Your task to perform on an android device: Clear all items from cart on bestbuy.com. Image 0: 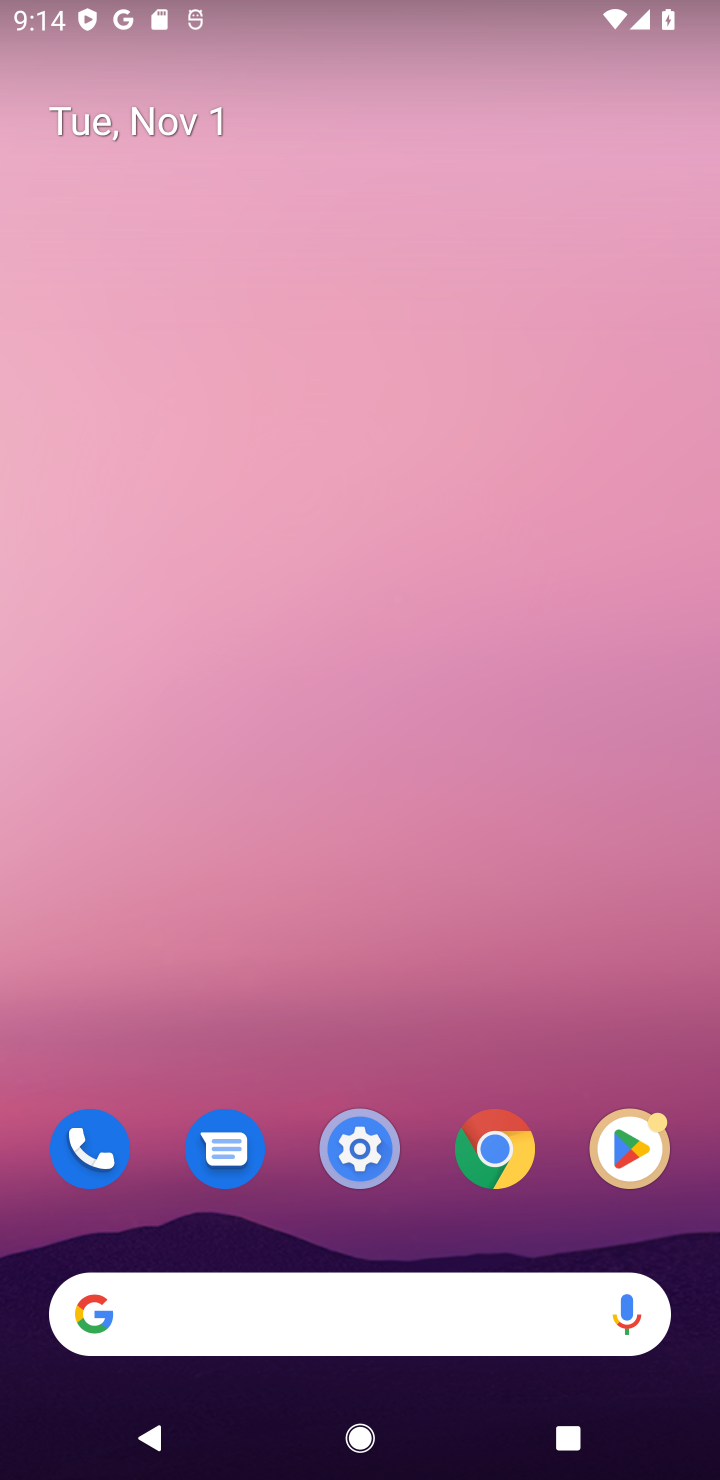
Step 0: press home button
Your task to perform on an android device: Clear all items from cart on bestbuy.com. Image 1: 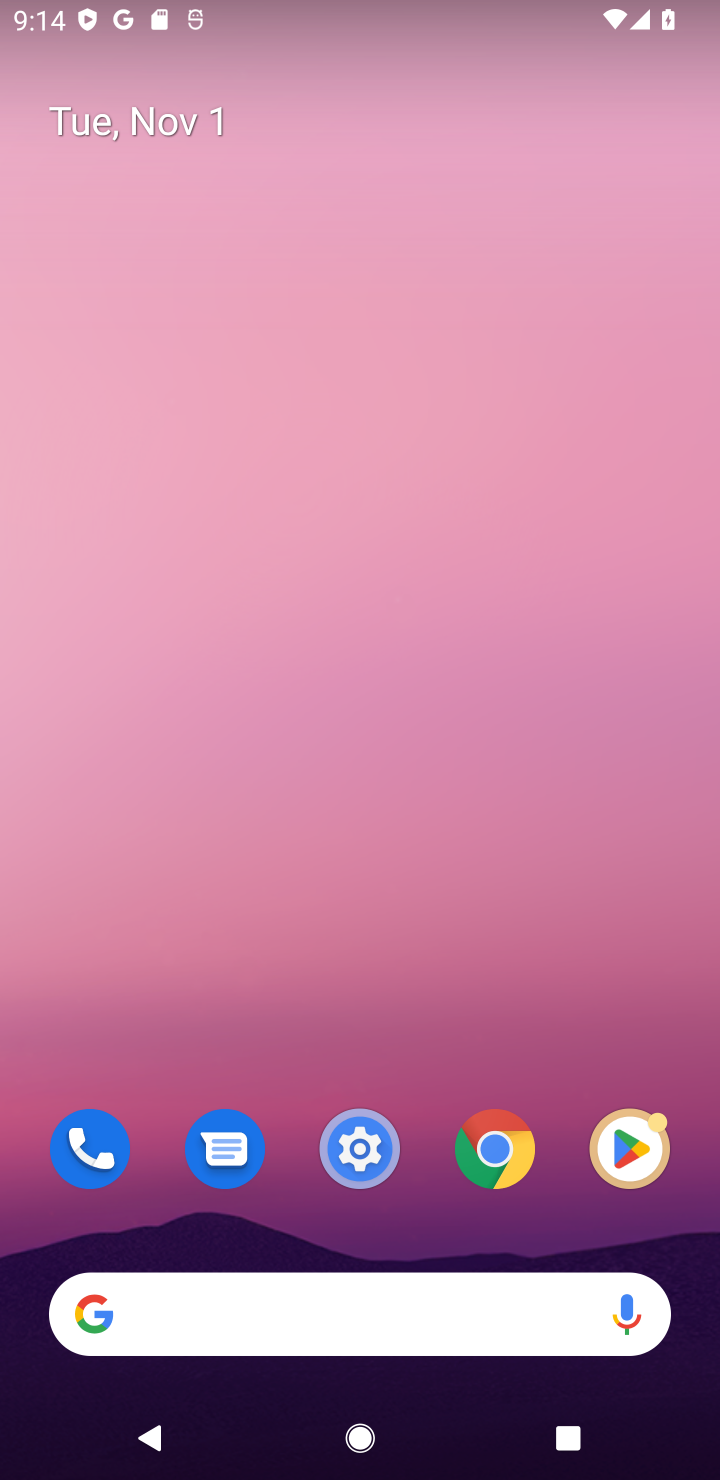
Step 1: click (144, 1306)
Your task to perform on an android device: Clear all items from cart on bestbuy.com. Image 2: 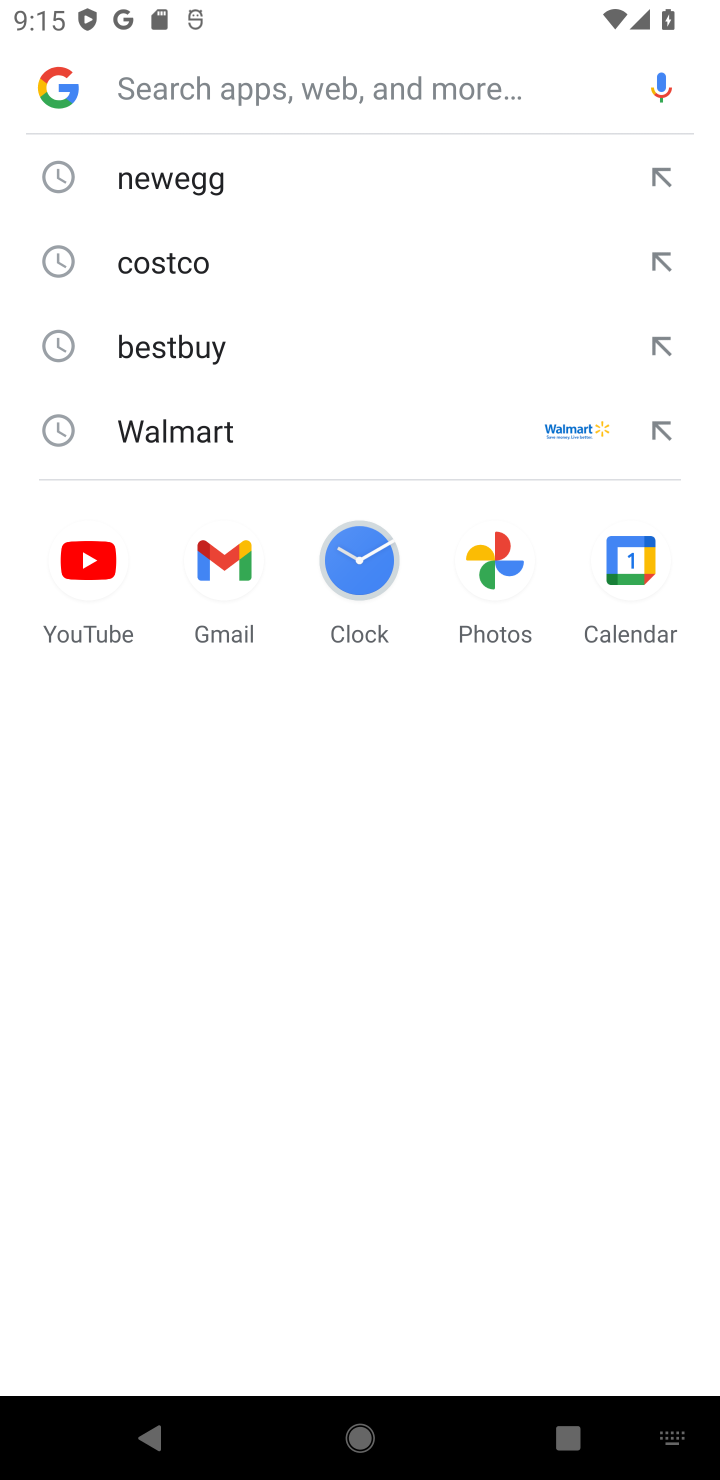
Step 2: press enter
Your task to perform on an android device: Clear all items from cart on bestbuy.com. Image 3: 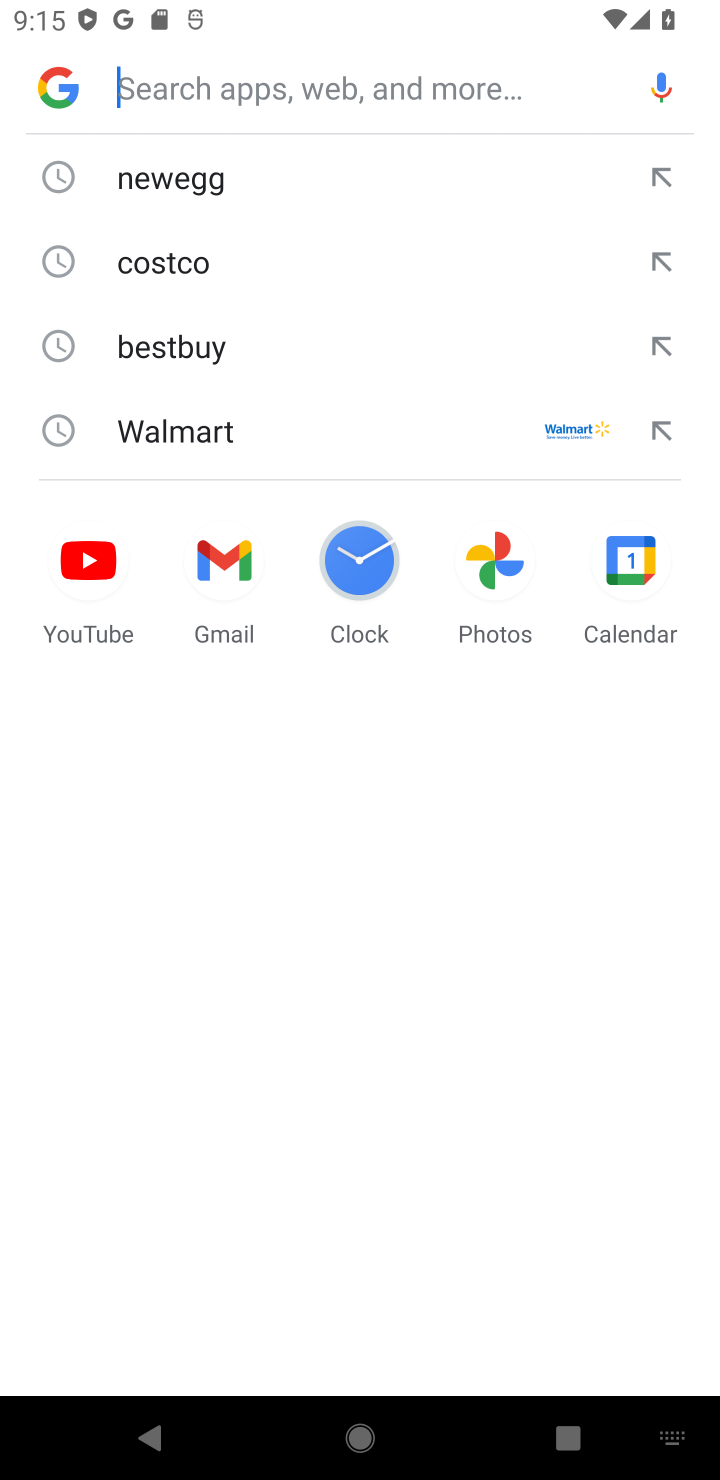
Step 3: type "bestbuy.com"
Your task to perform on an android device: Clear all items from cart on bestbuy.com. Image 4: 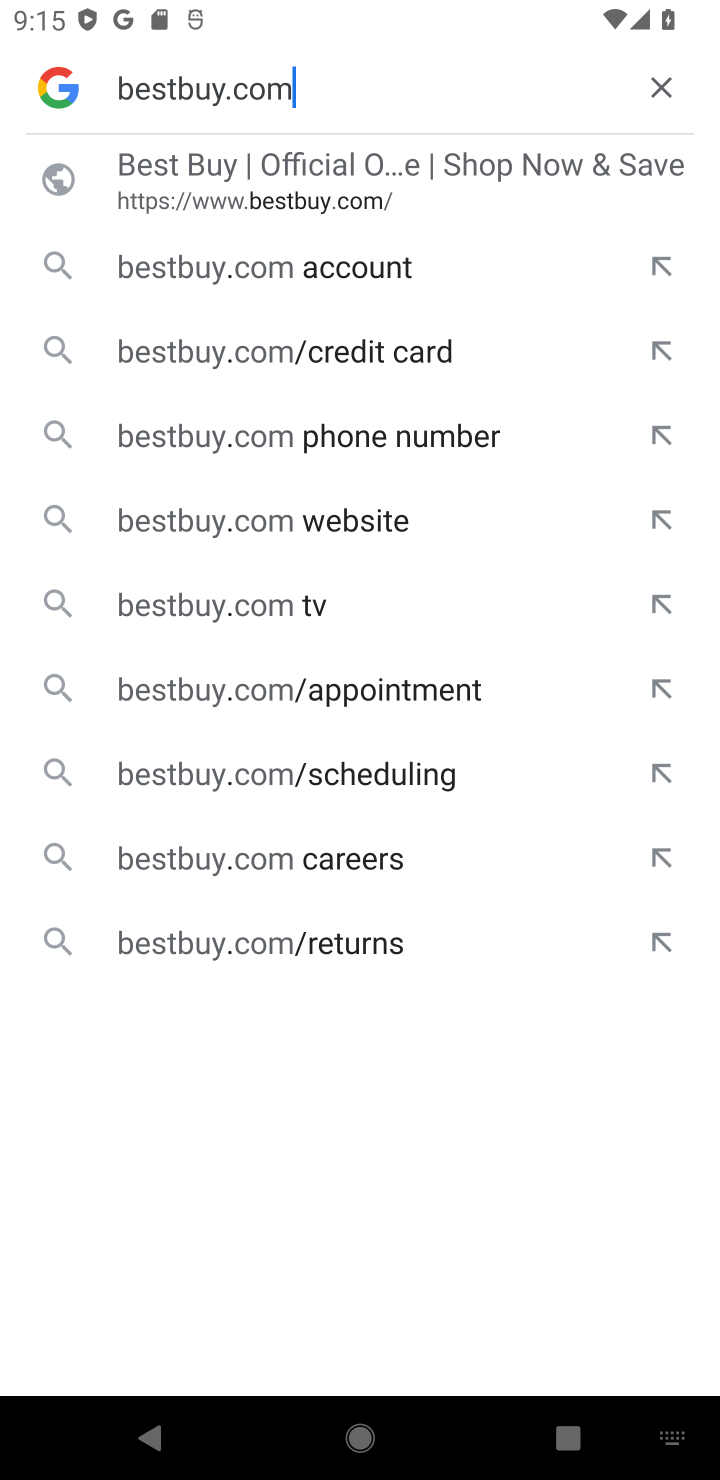
Step 4: press enter
Your task to perform on an android device: Clear all items from cart on bestbuy.com. Image 5: 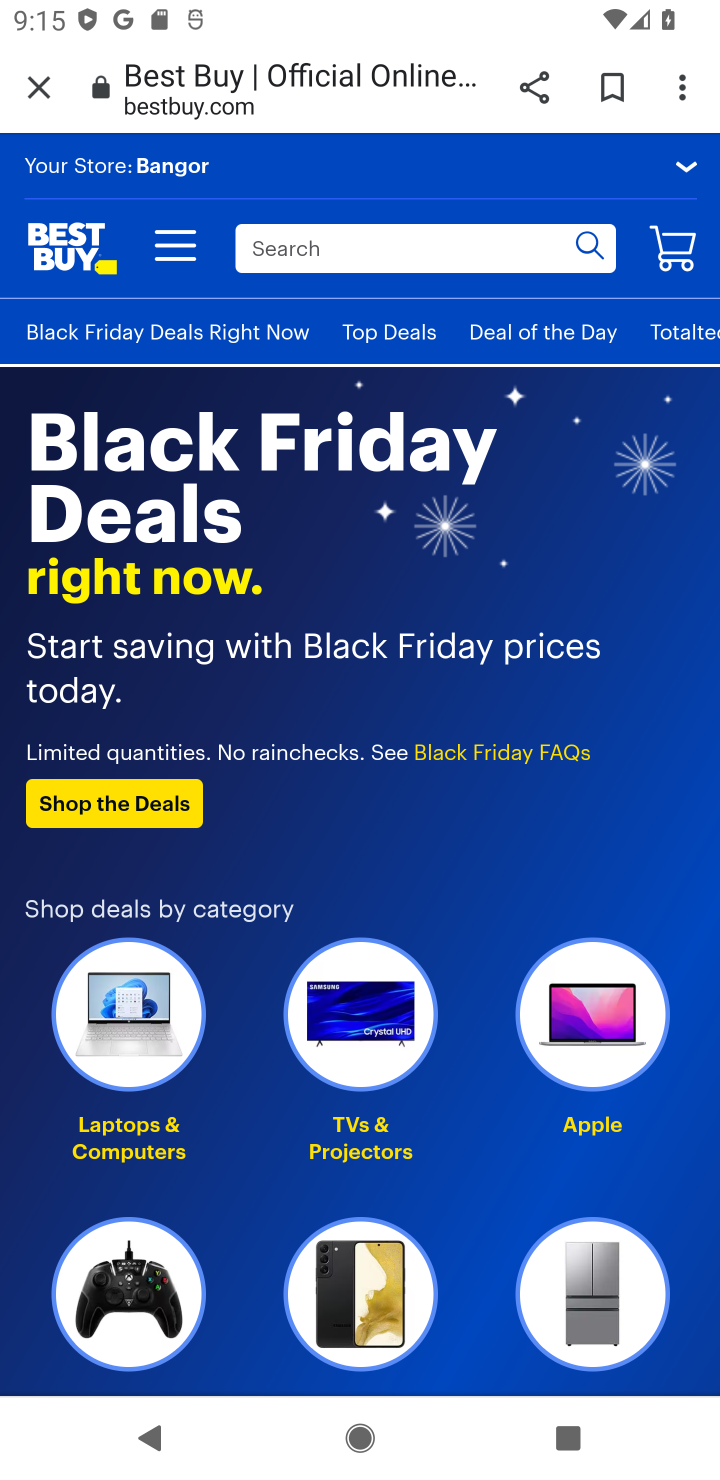
Step 5: click (678, 257)
Your task to perform on an android device: Clear all items from cart on bestbuy.com. Image 6: 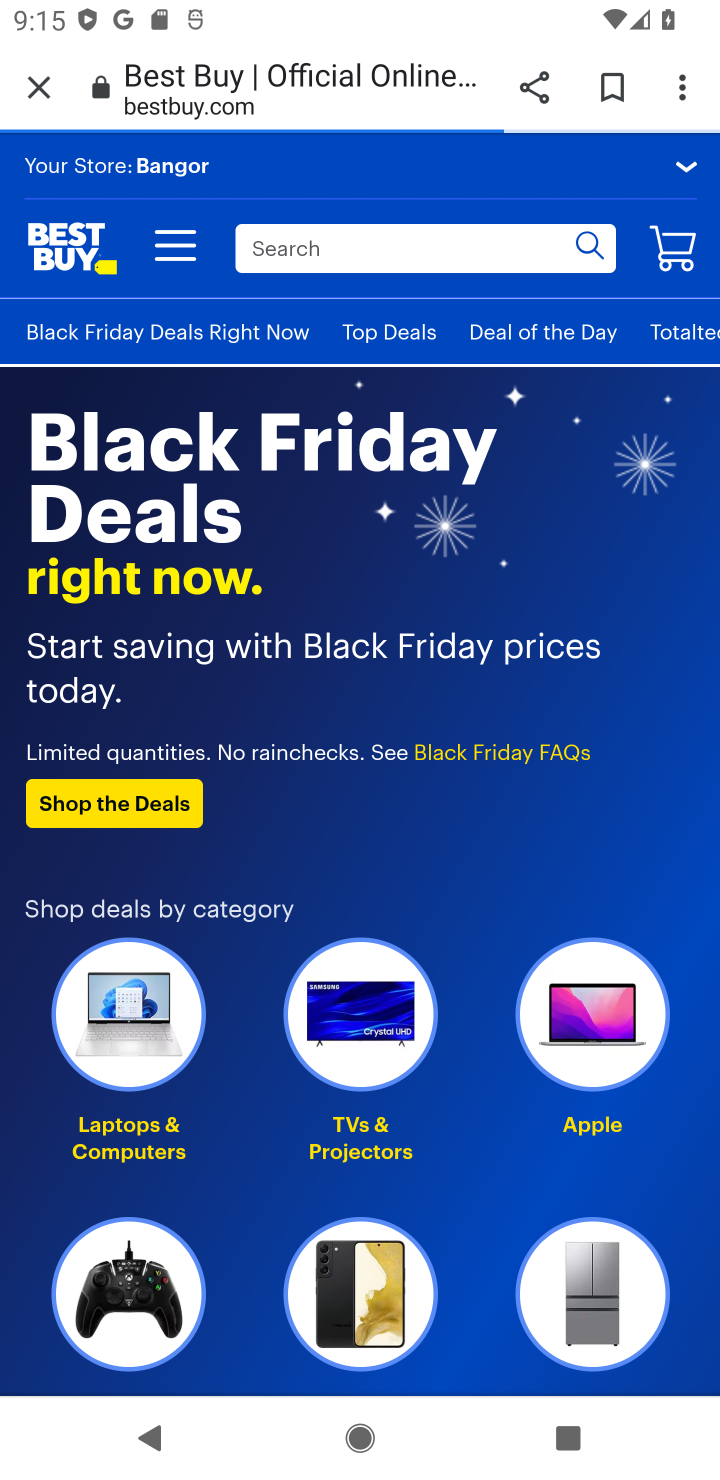
Step 6: click (680, 250)
Your task to perform on an android device: Clear all items from cart on bestbuy.com. Image 7: 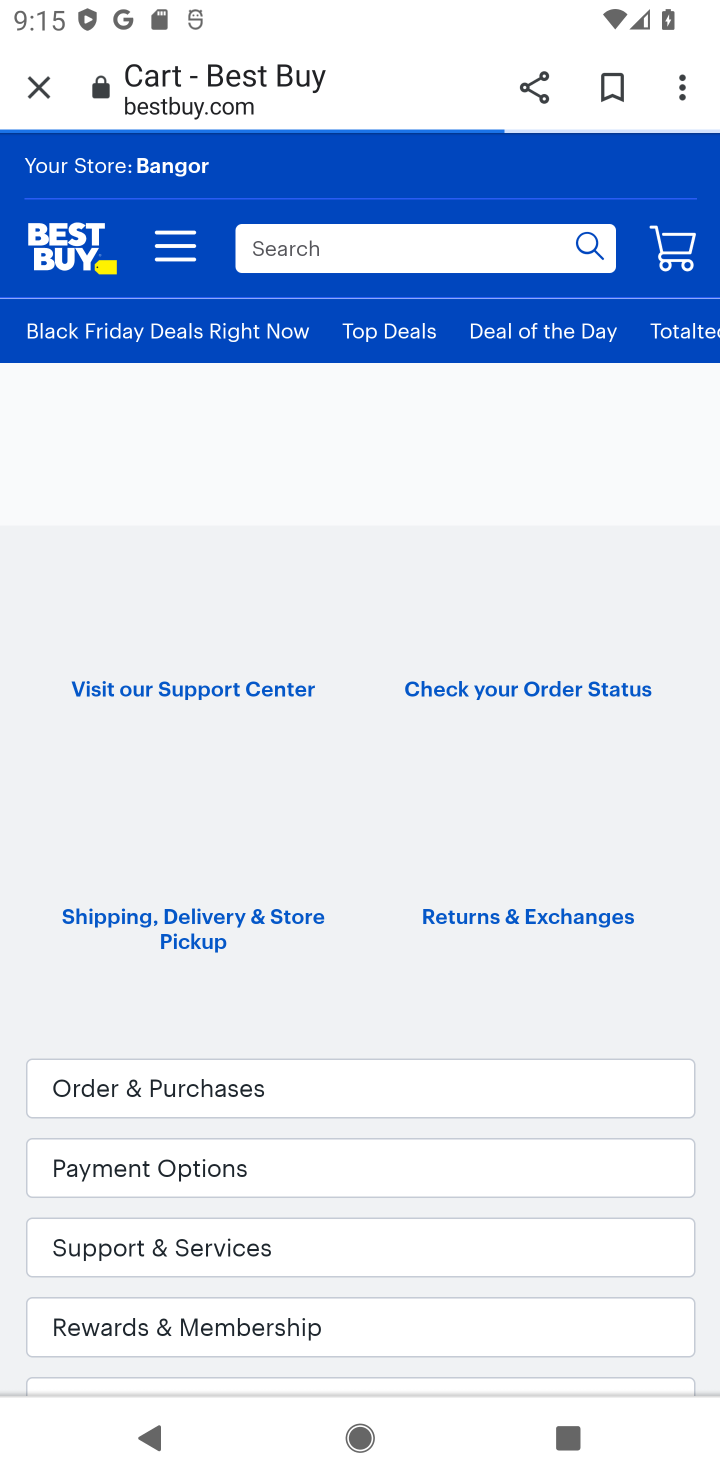
Step 7: task complete